Your task to perform on an android device: Open accessibility settings Image 0: 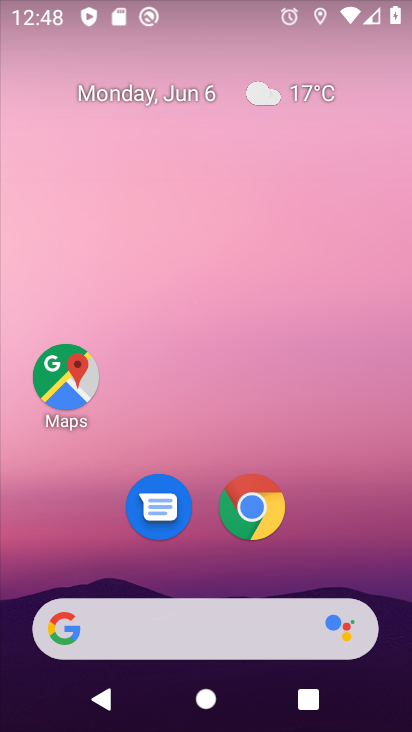
Step 0: drag from (356, 200) to (354, 0)
Your task to perform on an android device: Open accessibility settings Image 1: 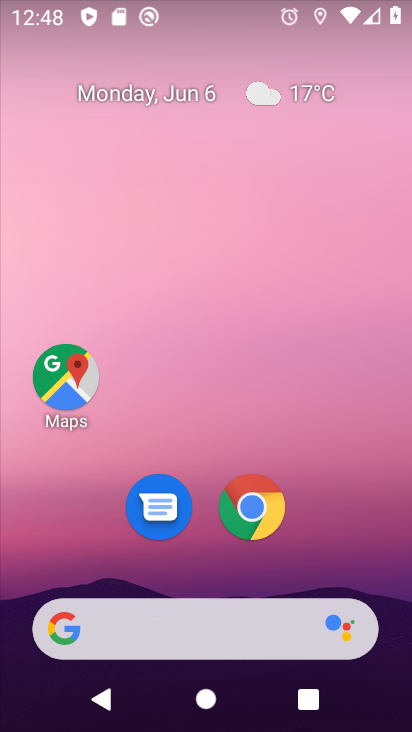
Step 1: drag from (231, 400) to (250, 1)
Your task to perform on an android device: Open accessibility settings Image 2: 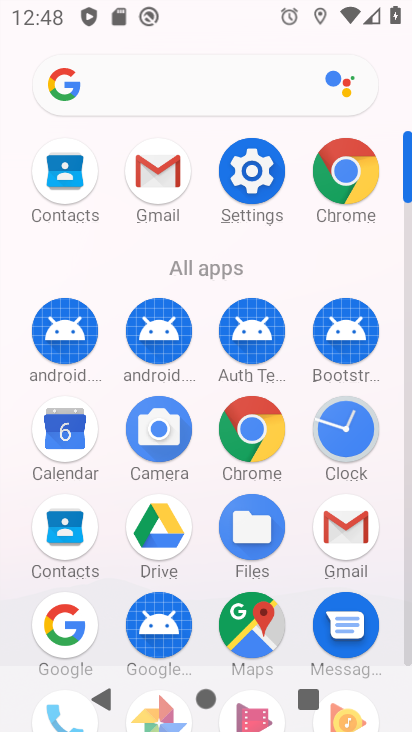
Step 2: click (255, 171)
Your task to perform on an android device: Open accessibility settings Image 3: 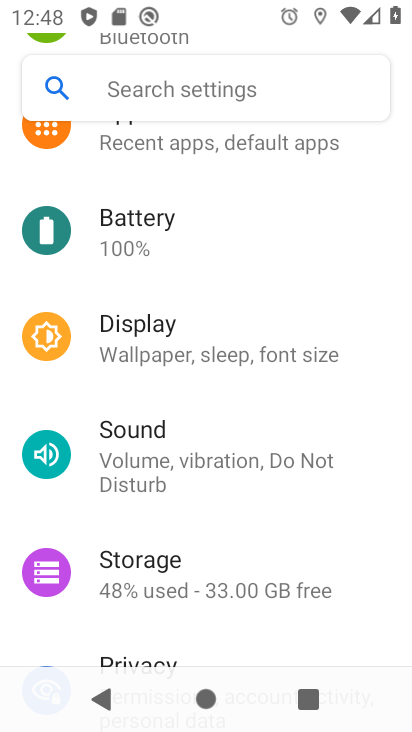
Step 3: drag from (251, 441) to (266, 163)
Your task to perform on an android device: Open accessibility settings Image 4: 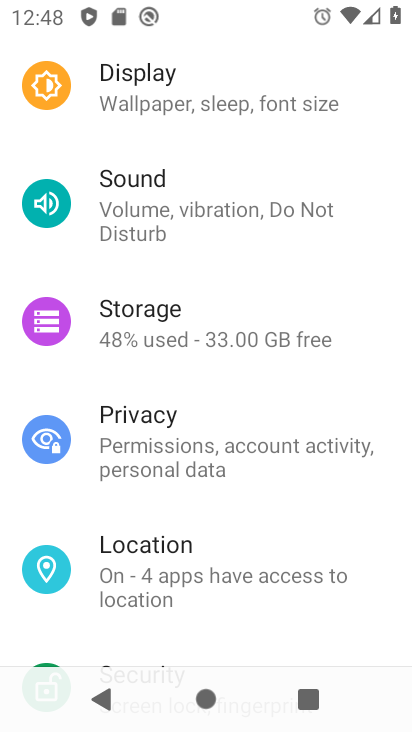
Step 4: drag from (235, 478) to (248, 56)
Your task to perform on an android device: Open accessibility settings Image 5: 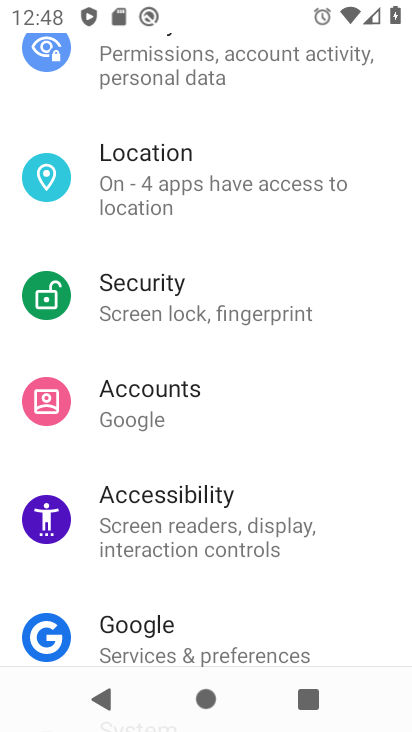
Step 5: click (212, 513)
Your task to perform on an android device: Open accessibility settings Image 6: 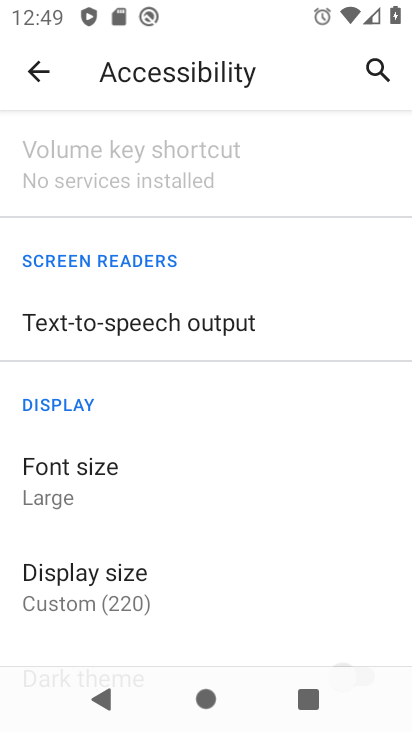
Step 6: task complete